Your task to perform on an android device: turn off improve location accuracy Image 0: 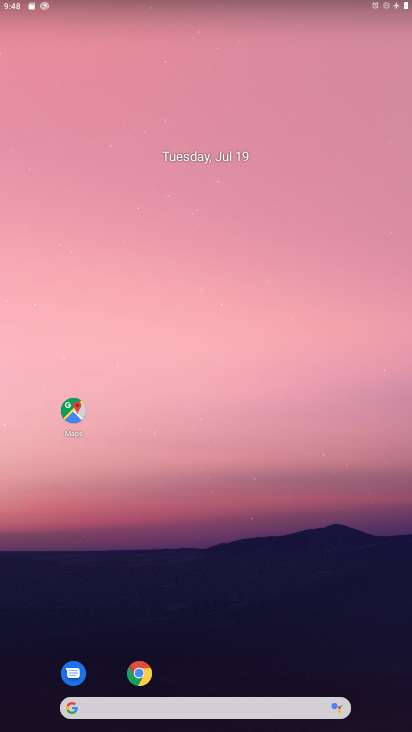
Step 0: drag from (381, 673) to (326, 89)
Your task to perform on an android device: turn off improve location accuracy Image 1: 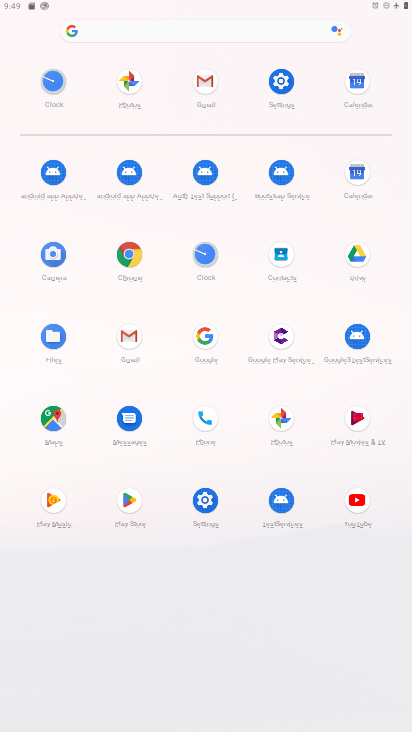
Step 1: click (205, 499)
Your task to perform on an android device: turn off improve location accuracy Image 2: 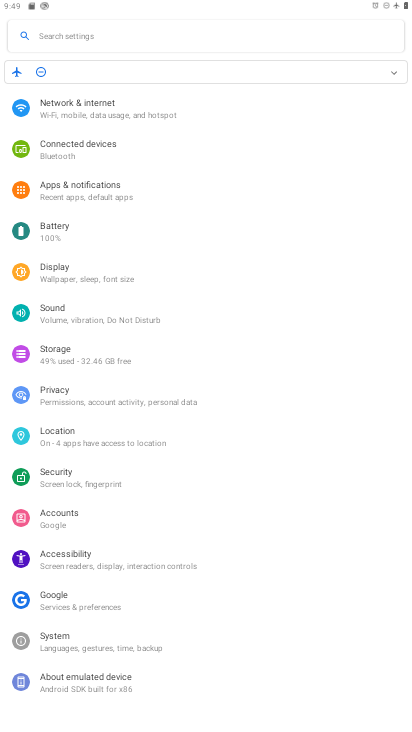
Step 2: click (62, 427)
Your task to perform on an android device: turn off improve location accuracy Image 3: 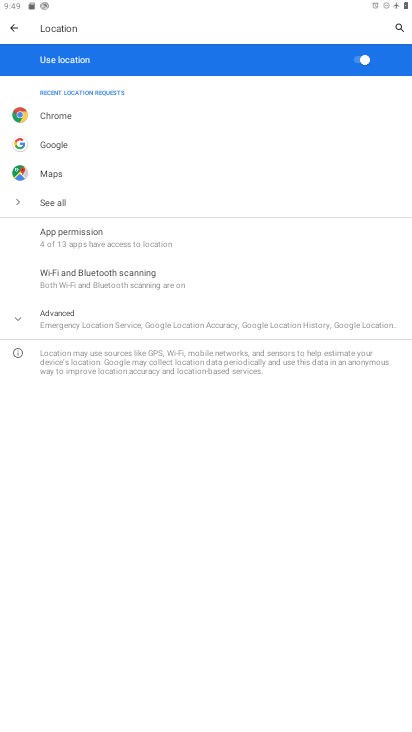
Step 3: click (14, 321)
Your task to perform on an android device: turn off improve location accuracy Image 4: 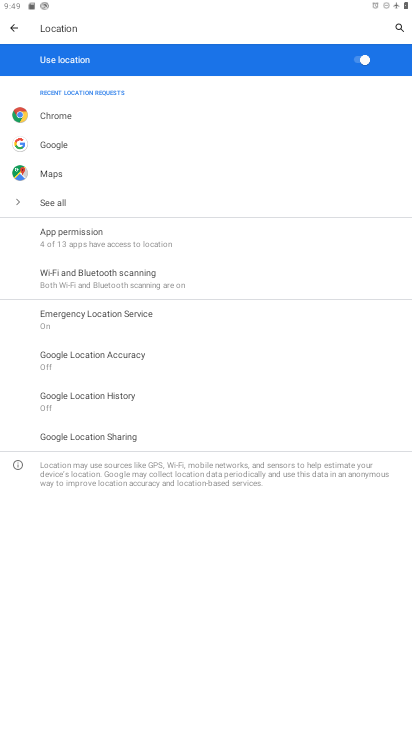
Step 4: click (75, 354)
Your task to perform on an android device: turn off improve location accuracy Image 5: 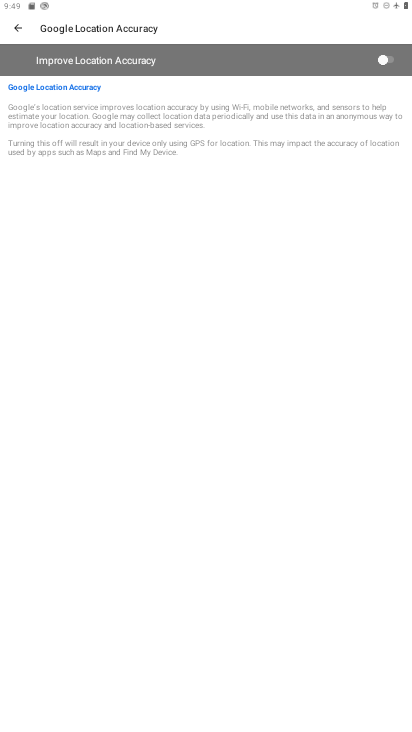
Step 5: task complete